Your task to perform on an android device: Open Google Image 0: 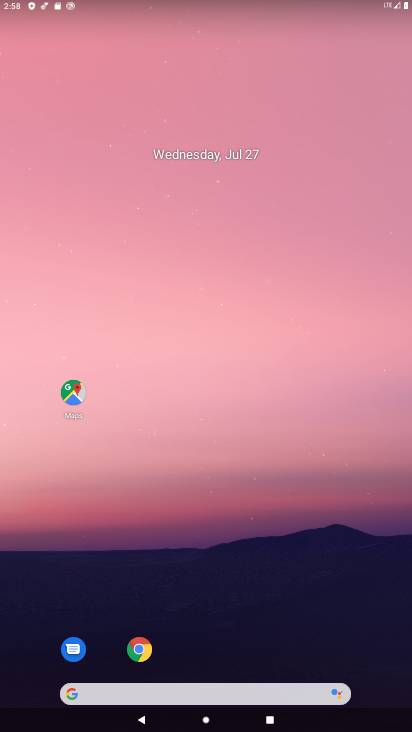
Step 0: click (289, 148)
Your task to perform on an android device: Open Google Image 1: 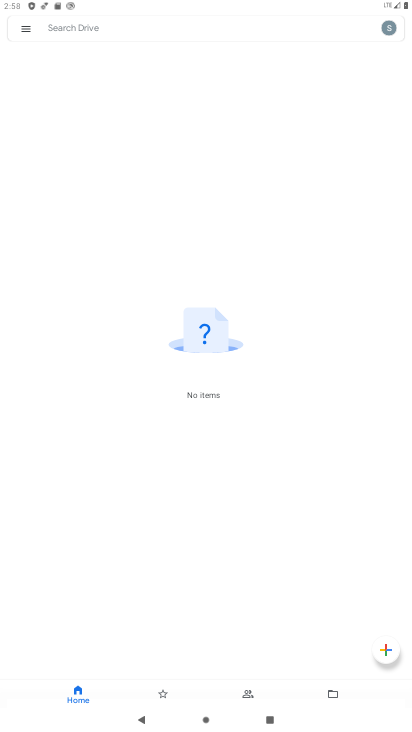
Step 1: press home button
Your task to perform on an android device: Open Google Image 2: 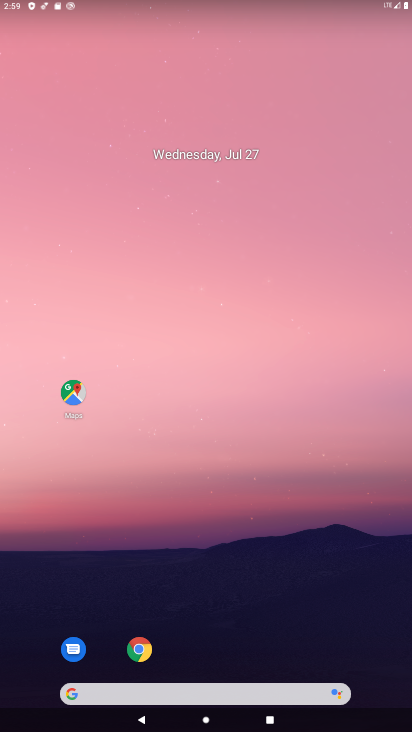
Step 2: drag from (188, 629) to (234, 215)
Your task to perform on an android device: Open Google Image 3: 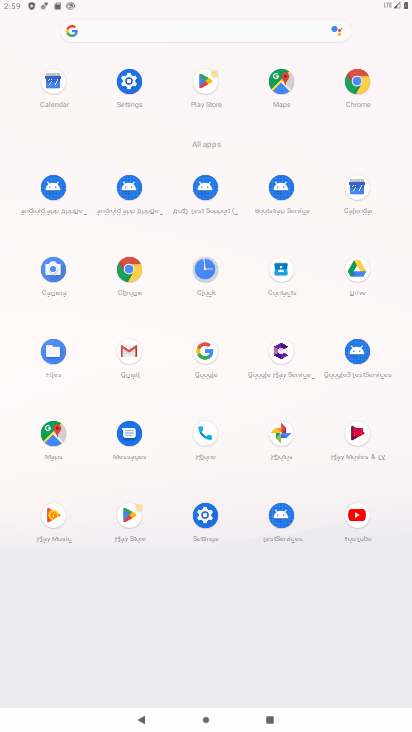
Step 3: click (207, 344)
Your task to perform on an android device: Open Google Image 4: 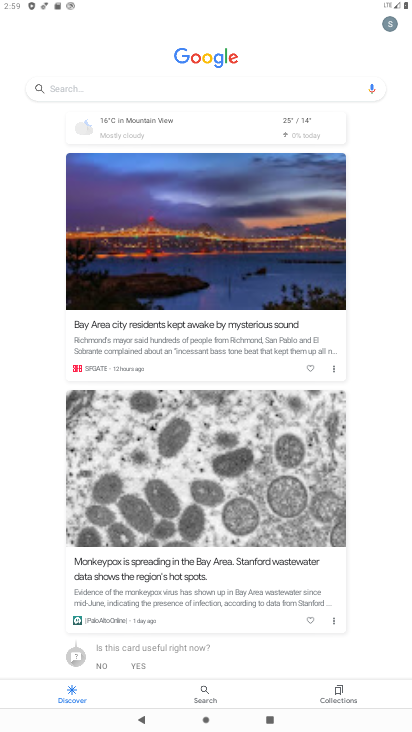
Step 4: task complete